Your task to perform on an android device: Open ESPN.com Image 0: 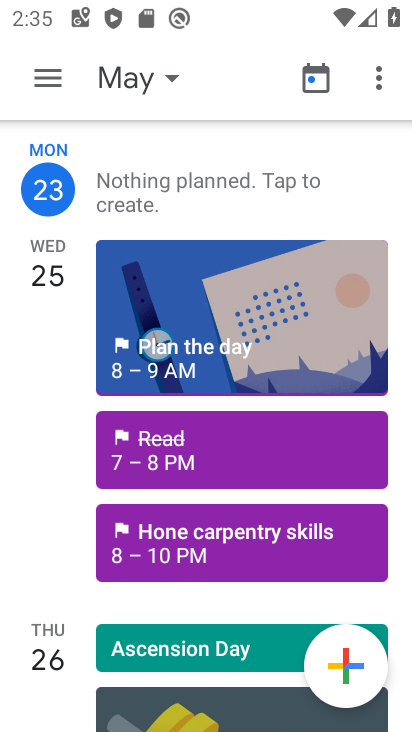
Step 0: press home button
Your task to perform on an android device: Open ESPN.com Image 1: 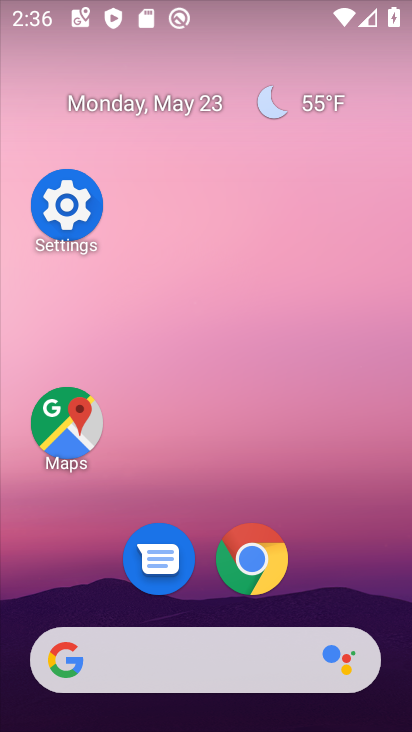
Step 1: click (266, 572)
Your task to perform on an android device: Open ESPN.com Image 2: 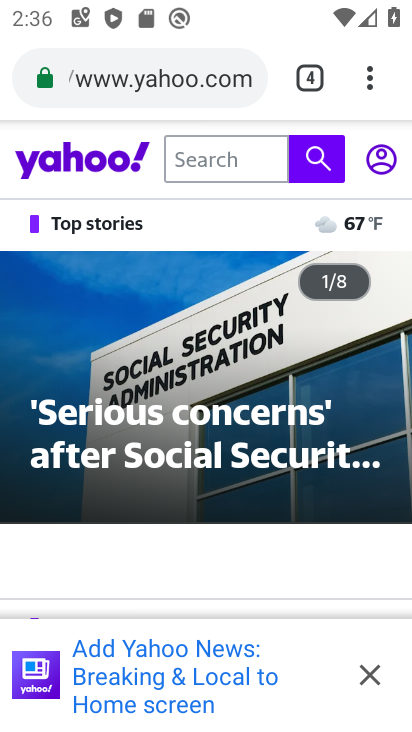
Step 2: click (323, 87)
Your task to perform on an android device: Open ESPN.com Image 3: 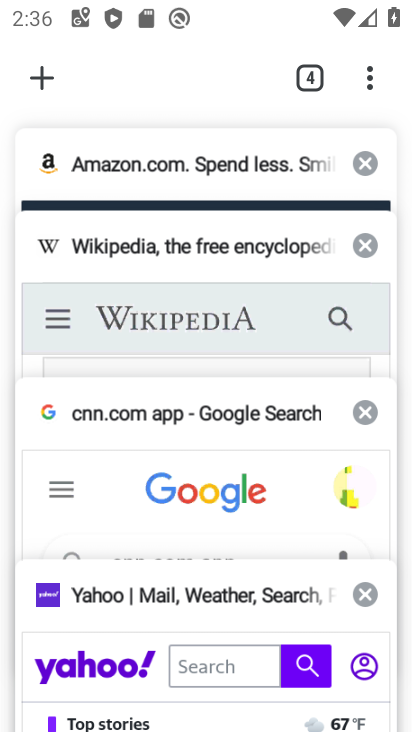
Step 3: click (51, 67)
Your task to perform on an android device: Open ESPN.com Image 4: 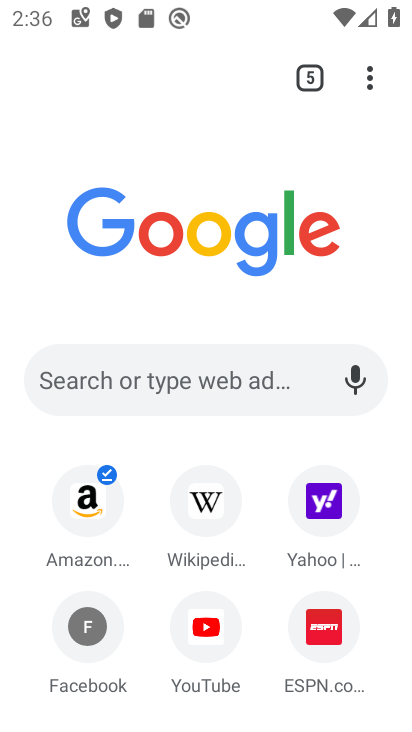
Step 4: click (319, 616)
Your task to perform on an android device: Open ESPN.com Image 5: 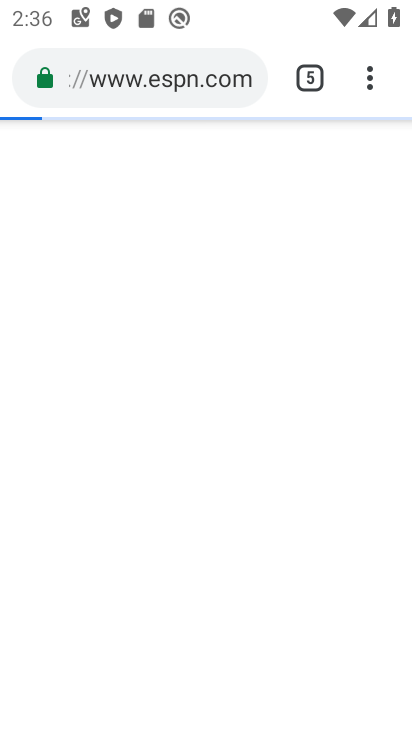
Step 5: task complete